Your task to perform on an android device: Open Google Chrome and click the shortcut for Amazon.com Image 0: 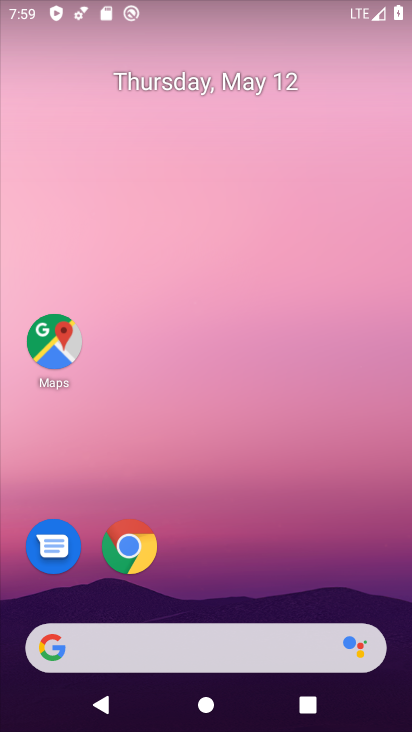
Step 0: click (115, 547)
Your task to perform on an android device: Open Google Chrome and click the shortcut for Amazon.com Image 1: 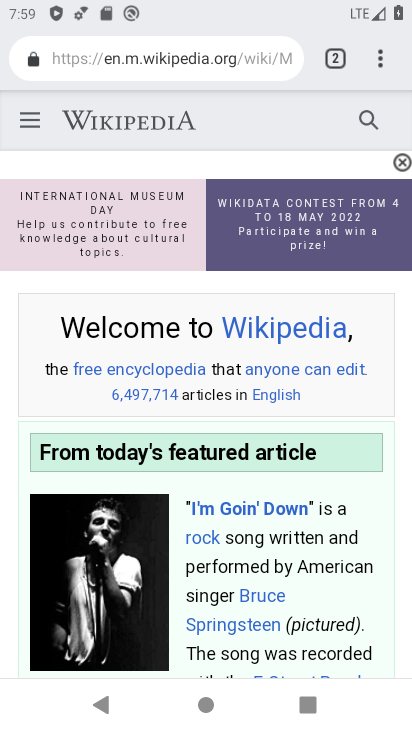
Step 1: click (340, 57)
Your task to perform on an android device: Open Google Chrome and click the shortcut for Amazon.com Image 2: 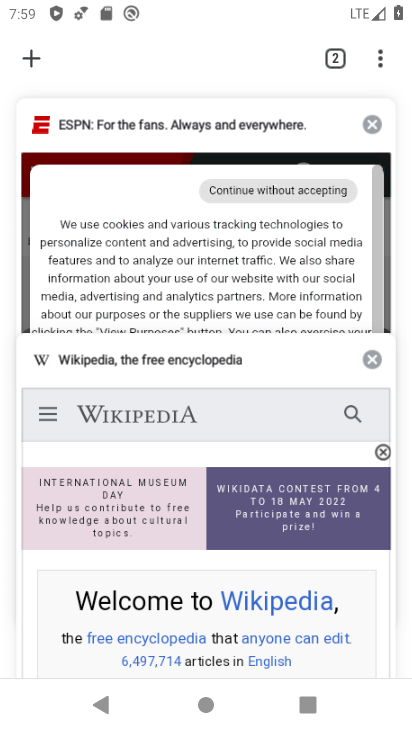
Step 2: click (24, 47)
Your task to perform on an android device: Open Google Chrome and click the shortcut for Amazon.com Image 3: 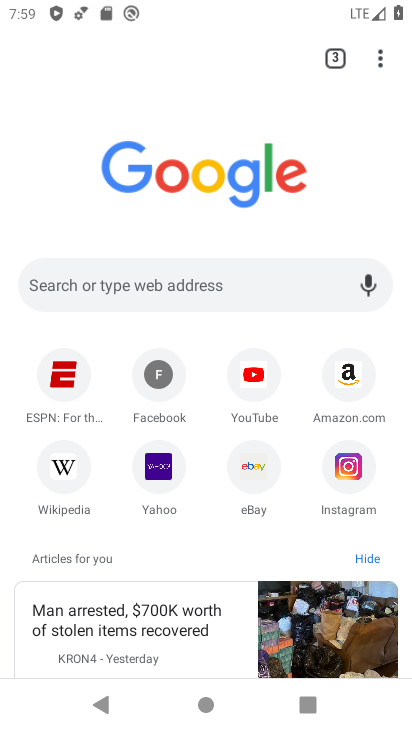
Step 3: click (353, 372)
Your task to perform on an android device: Open Google Chrome and click the shortcut for Amazon.com Image 4: 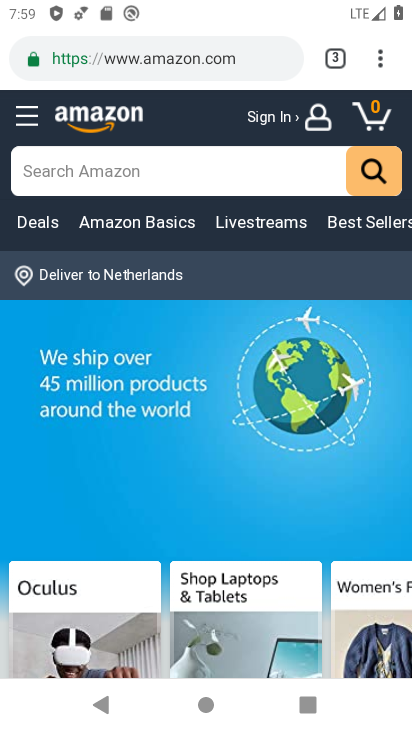
Step 4: task complete